Your task to perform on an android device: Do I have any events today? Image 0: 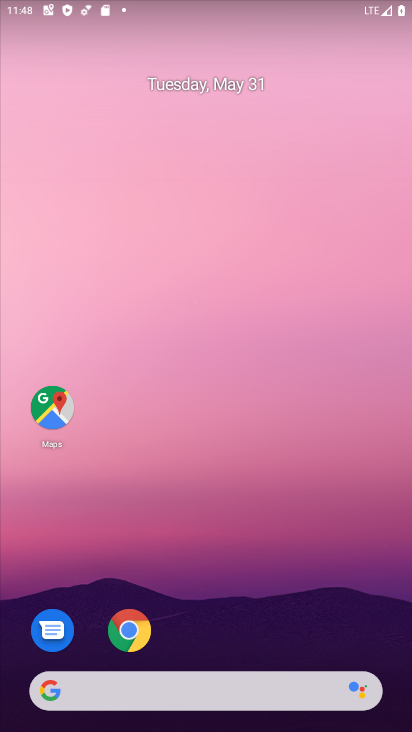
Step 0: press home button
Your task to perform on an android device: Do I have any events today? Image 1: 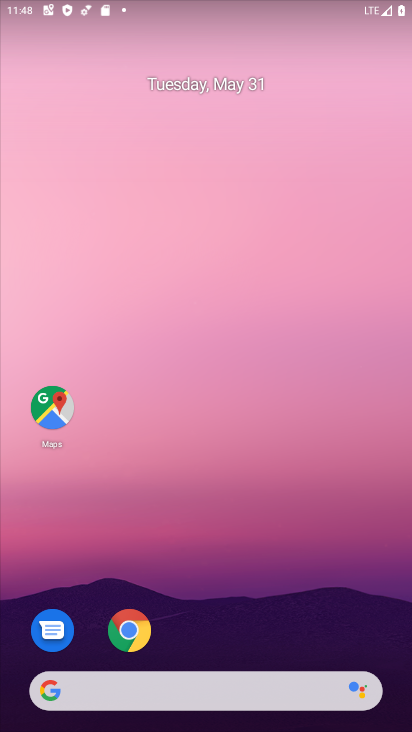
Step 1: drag from (305, 549) to (243, 115)
Your task to perform on an android device: Do I have any events today? Image 2: 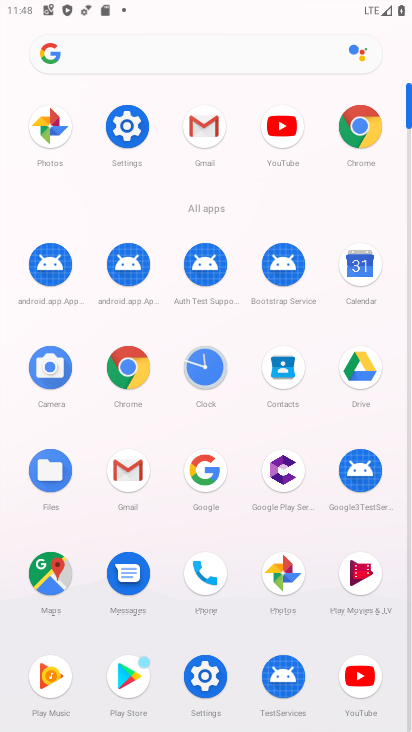
Step 2: click (367, 276)
Your task to perform on an android device: Do I have any events today? Image 3: 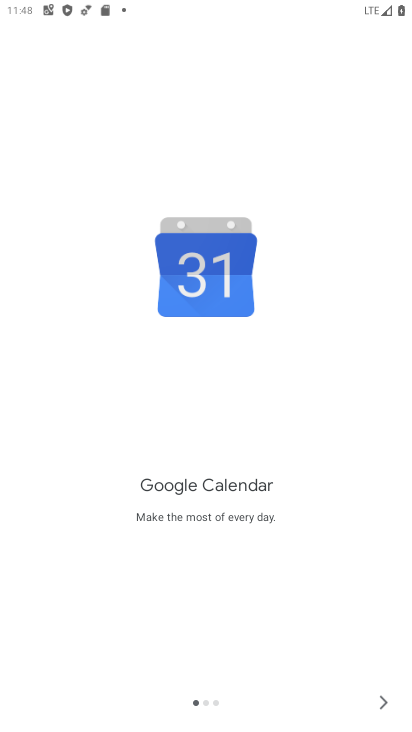
Step 3: click (378, 690)
Your task to perform on an android device: Do I have any events today? Image 4: 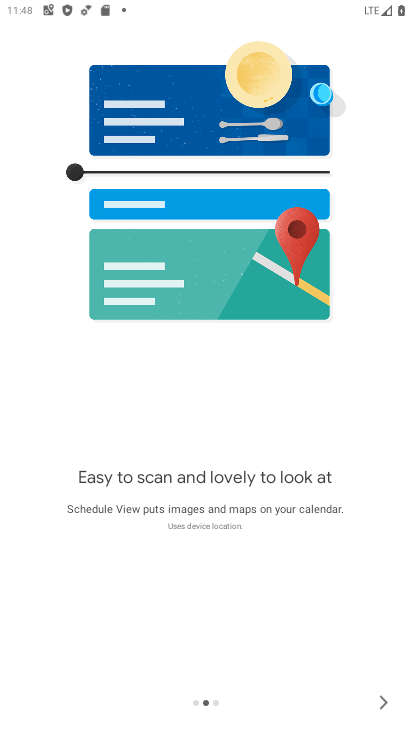
Step 4: click (383, 699)
Your task to perform on an android device: Do I have any events today? Image 5: 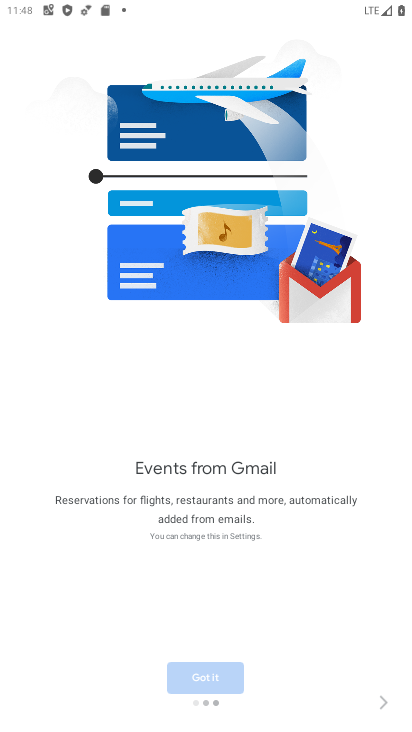
Step 5: click (383, 699)
Your task to perform on an android device: Do I have any events today? Image 6: 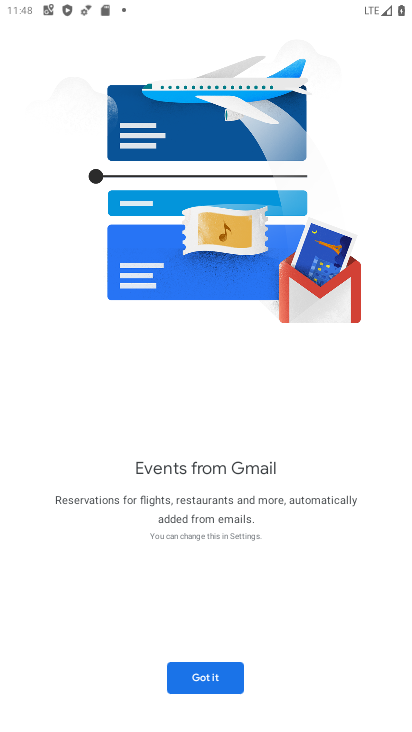
Step 6: click (222, 665)
Your task to perform on an android device: Do I have any events today? Image 7: 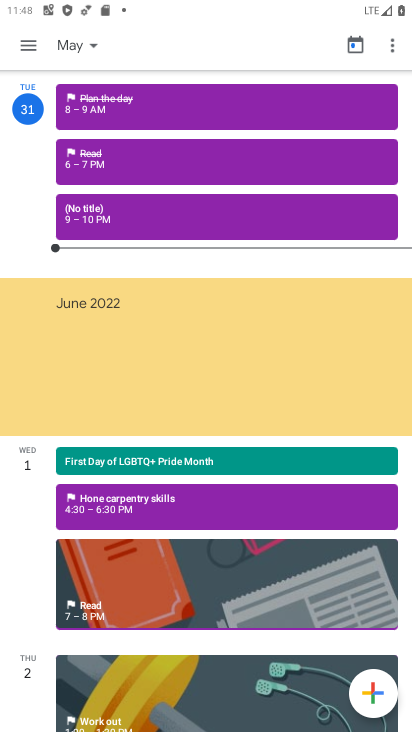
Step 7: task complete